Your task to perform on an android device: delete location history Image 0: 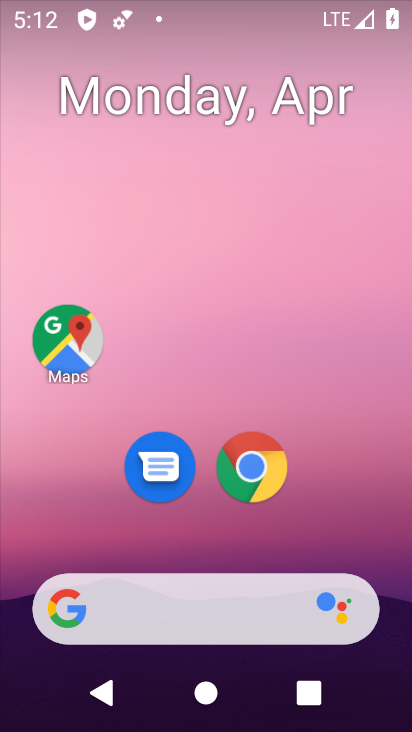
Step 0: drag from (361, 592) to (321, 0)
Your task to perform on an android device: delete location history Image 1: 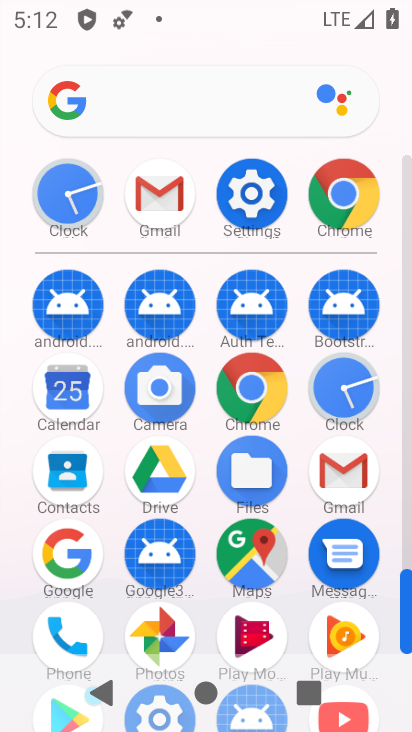
Step 1: click (255, 182)
Your task to perform on an android device: delete location history Image 2: 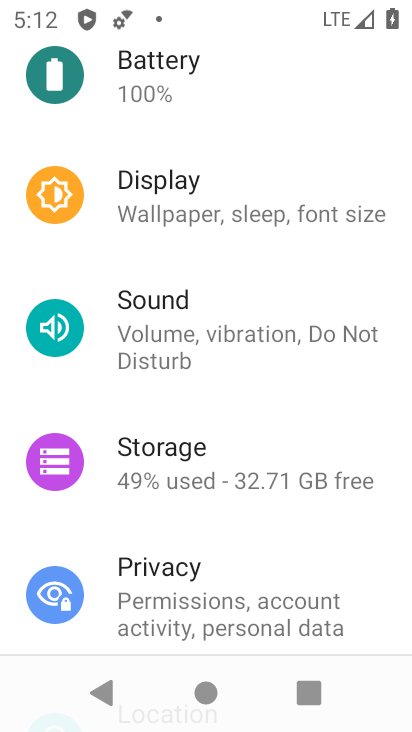
Step 2: press home button
Your task to perform on an android device: delete location history Image 3: 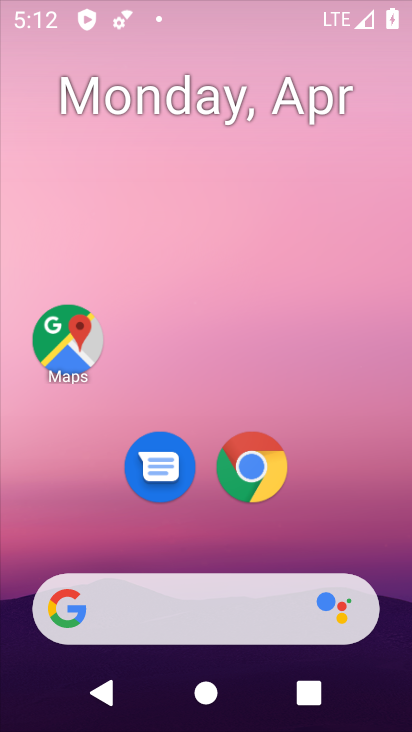
Step 3: drag from (304, 599) to (378, 26)
Your task to perform on an android device: delete location history Image 4: 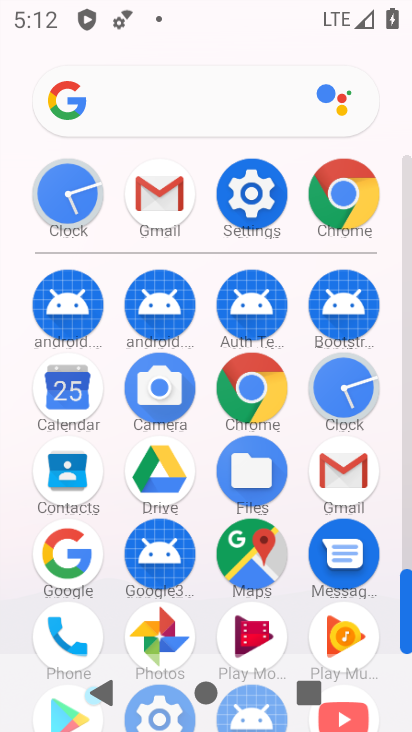
Step 4: drag from (296, 612) to (325, 100)
Your task to perform on an android device: delete location history Image 5: 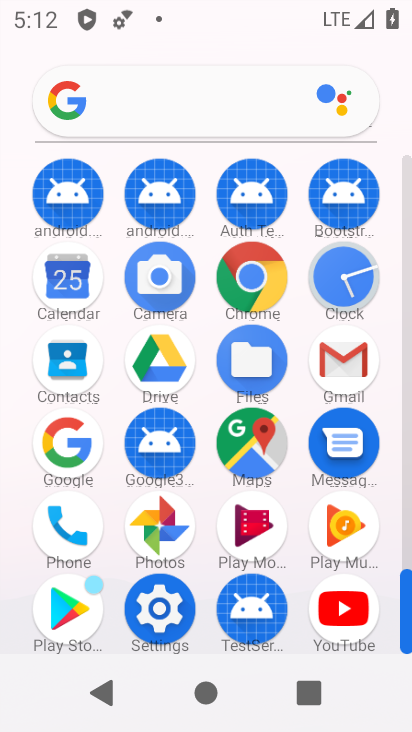
Step 5: click (237, 419)
Your task to perform on an android device: delete location history Image 6: 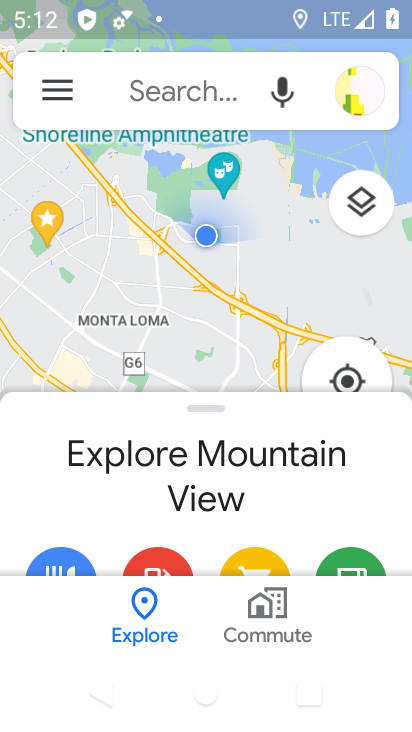
Step 6: drag from (61, 83) to (146, 364)
Your task to perform on an android device: delete location history Image 7: 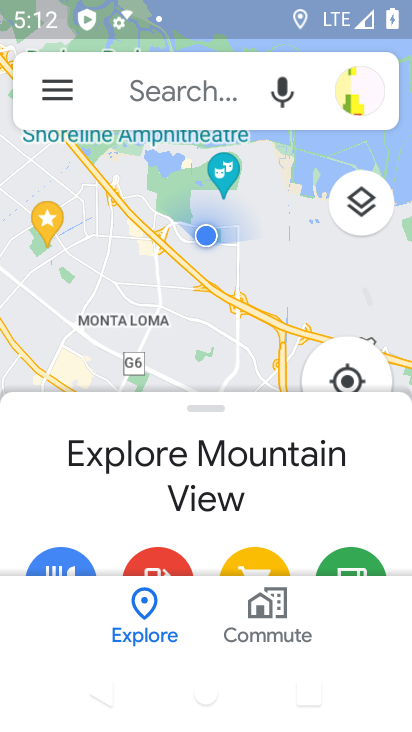
Step 7: click (60, 94)
Your task to perform on an android device: delete location history Image 8: 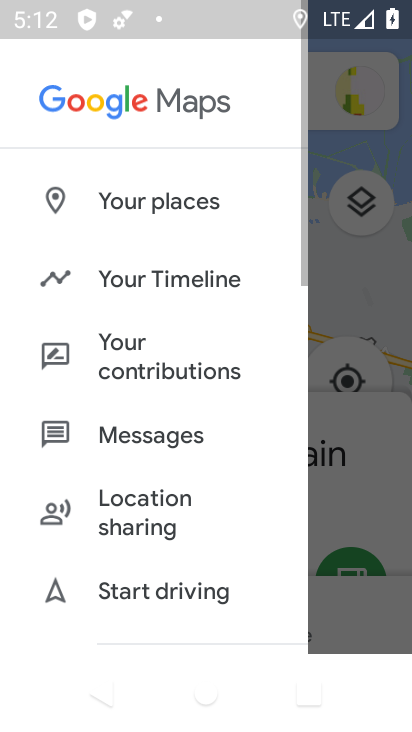
Step 8: drag from (246, 600) to (259, 36)
Your task to perform on an android device: delete location history Image 9: 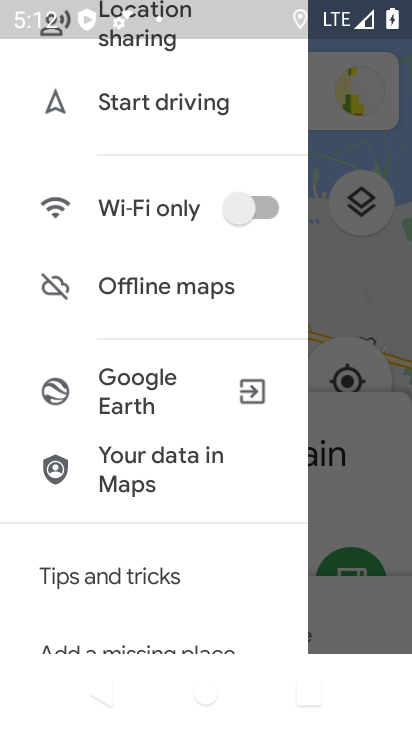
Step 9: drag from (180, 235) to (187, 543)
Your task to perform on an android device: delete location history Image 10: 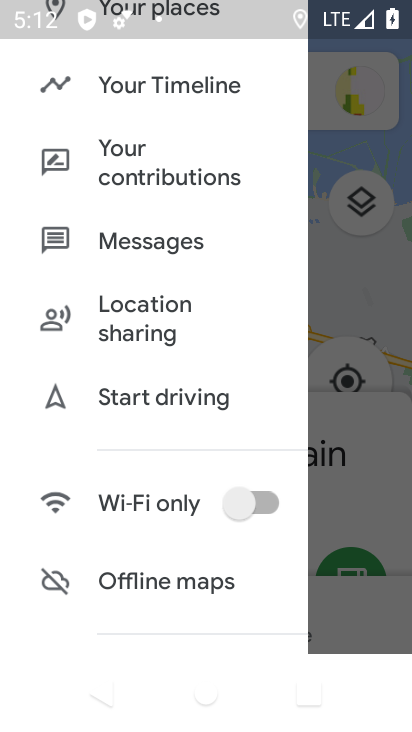
Step 10: click (211, 95)
Your task to perform on an android device: delete location history Image 11: 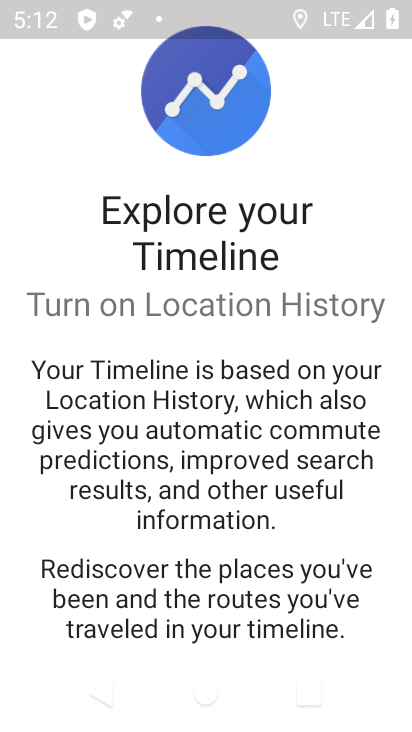
Step 11: drag from (286, 565) to (263, 85)
Your task to perform on an android device: delete location history Image 12: 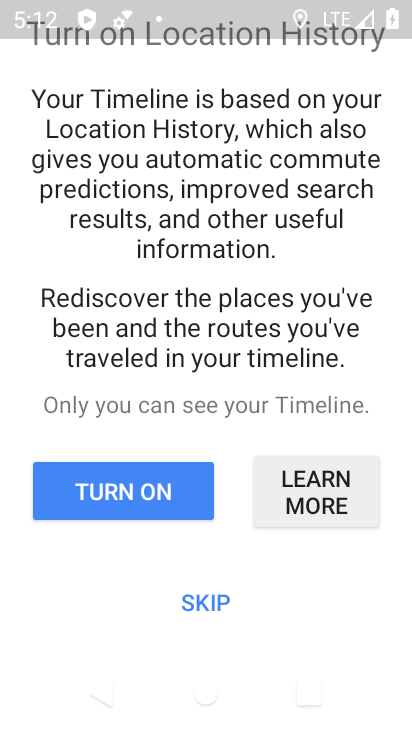
Step 12: click (181, 587)
Your task to perform on an android device: delete location history Image 13: 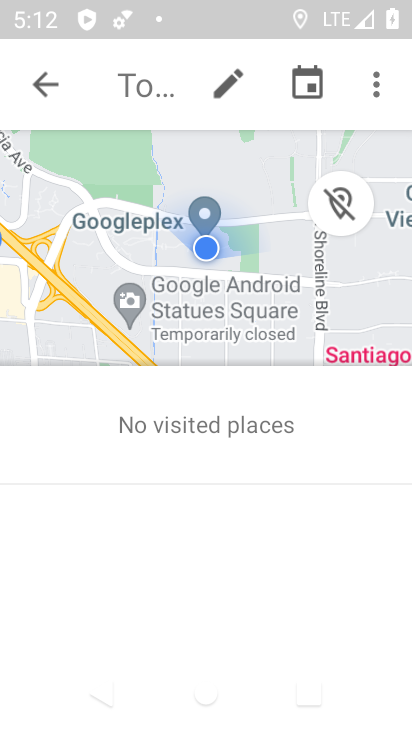
Step 13: click (380, 79)
Your task to perform on an android device: delete location history Image 14: 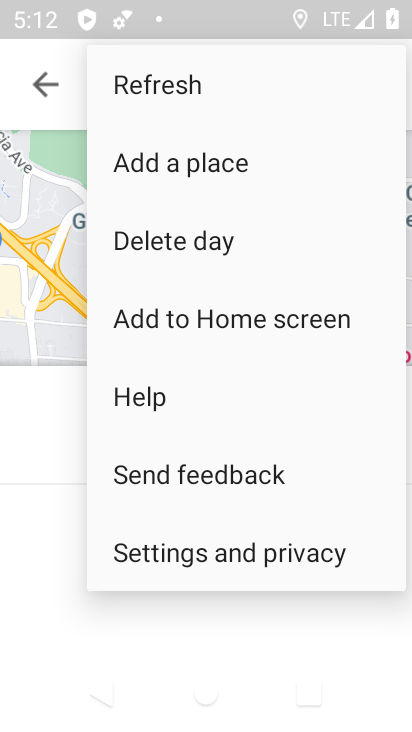
Step 14: click (223, 556)
Your task to perform on an android device: delete location history Image 15: 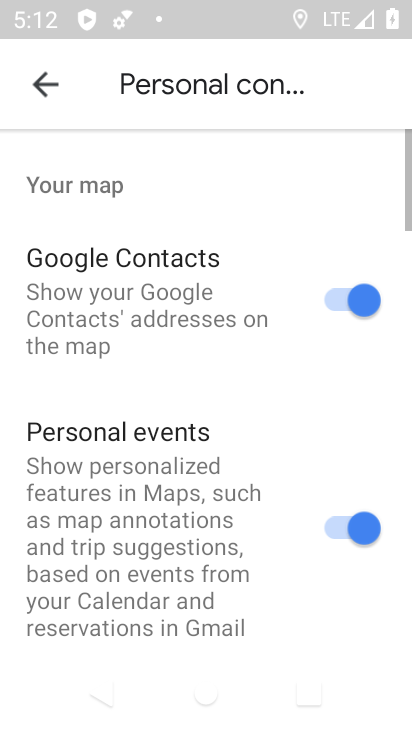
Step 15: drag from (237, 580) to (225, 90)
Your task to perform on an android device: delete location history Image 16: 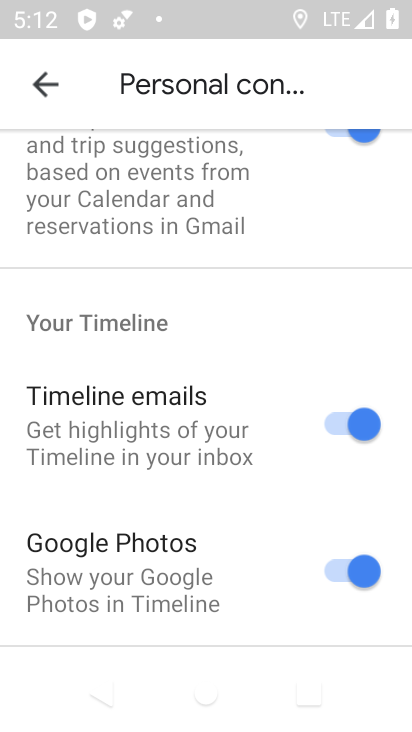
Step 16: drag from (216, 611) to (229, 205)
Your task to perform on an android device: delete location history Image 17: 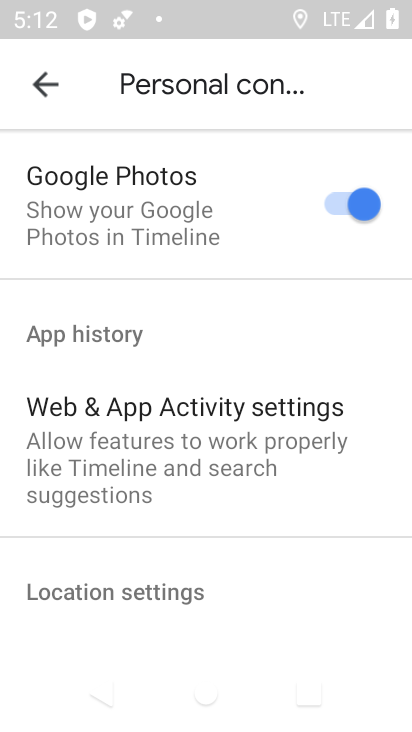
Step 17: drag from (234, 638) to (251, 116)
Your task to perform on an android device: delete location history Image 18: 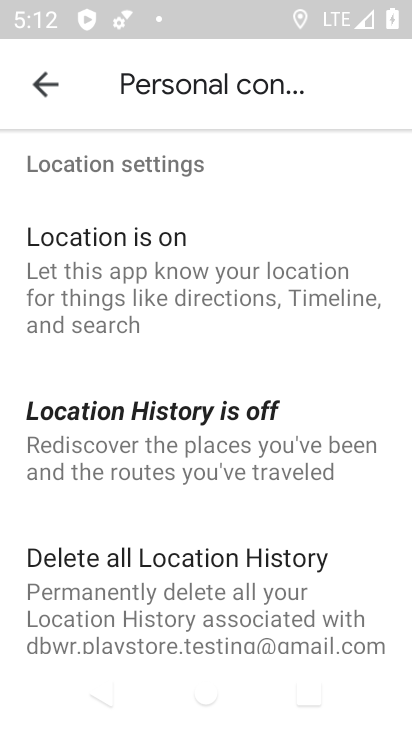
Step 18: click (261, 575)
Your task to perform on an android device: delete location history Image 19: 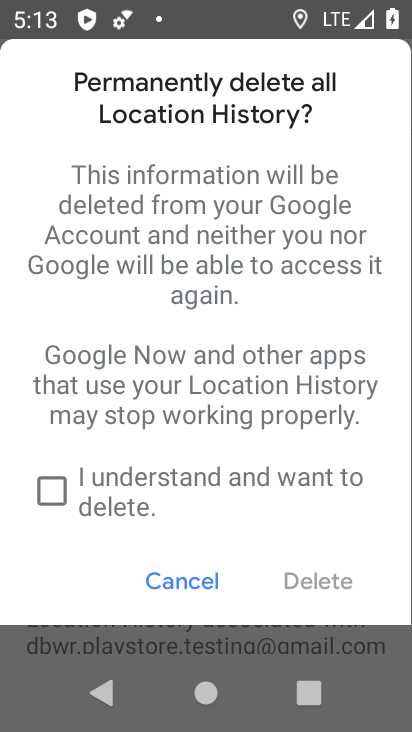
Step 19: click (62, 496)
Your task to perform on an android device: delete location history Image 20: 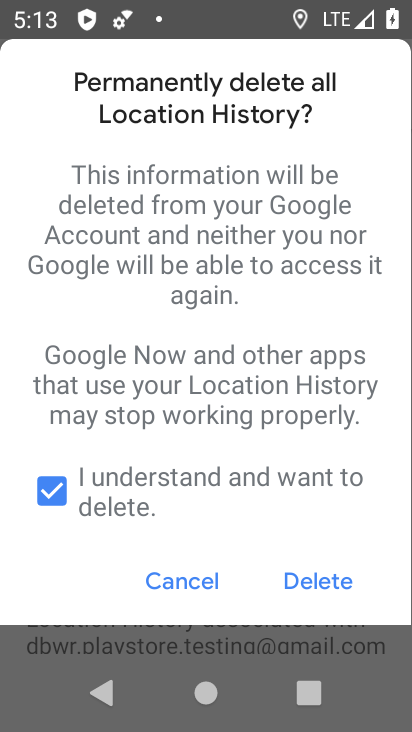
Step 20: click (328, 582)
Your task to perform on an android device: delete location history Image 21: 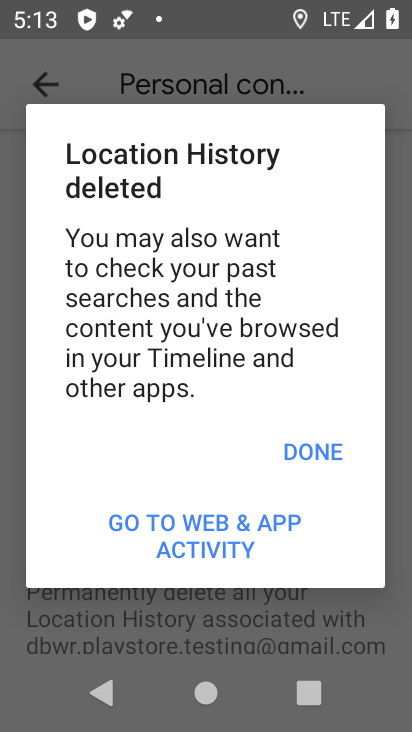
Step 21: task complete